Your task to perform on an android device: change the upload size in google photos Image 0: 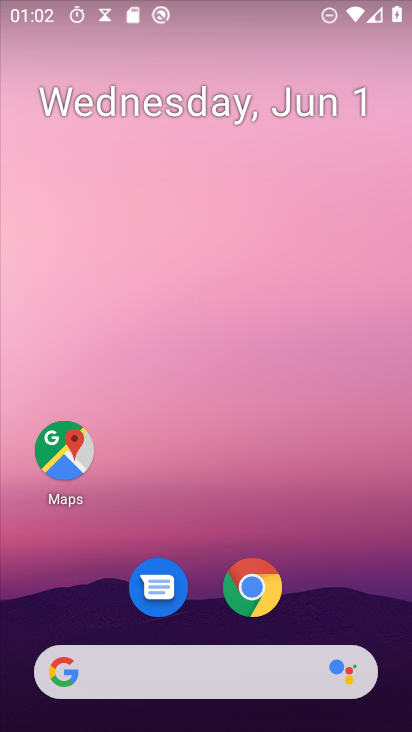
Step 0: drag from (318, 615) to (311, 48)
Your task to perform on an android device: change the upload size in google photos Image 1: 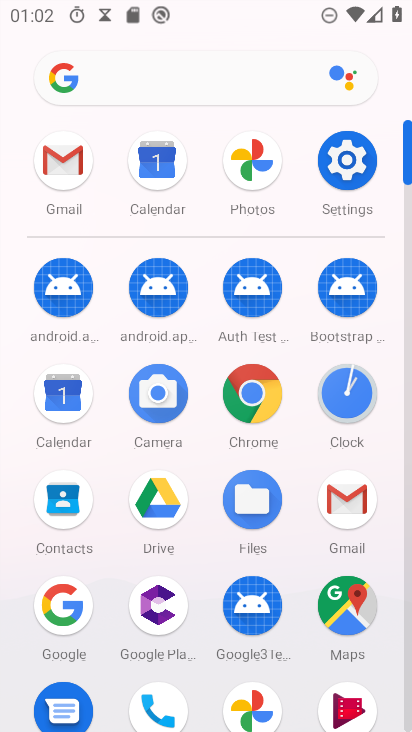
Step 1: click (255, 701)
Your task to perform on an android device: change the upload size in google photos Image 2: 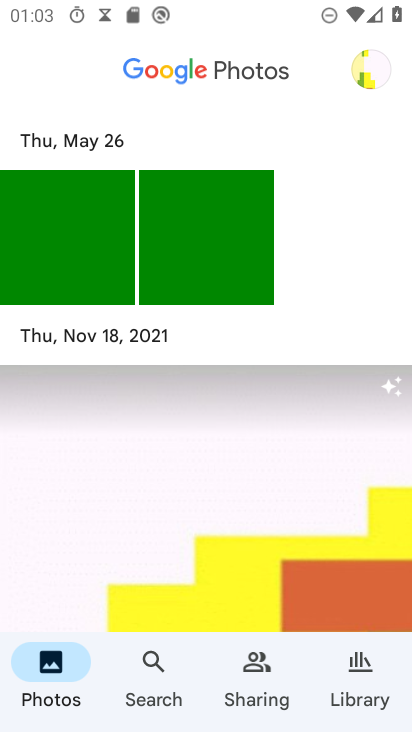
Step 2: click (359, 76)
Your task to perform on an android device: change the upload size in google photos Image 3: 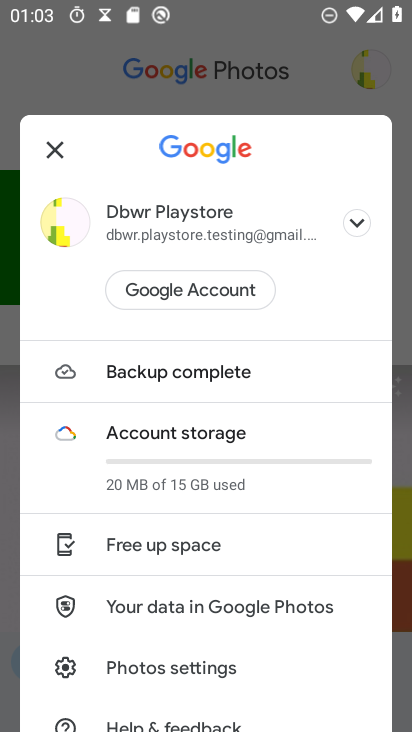
Step 3: drag from (281, 637) to (273, 165)
Your task to perform on an android device: change the upload size in google photos Image 4: 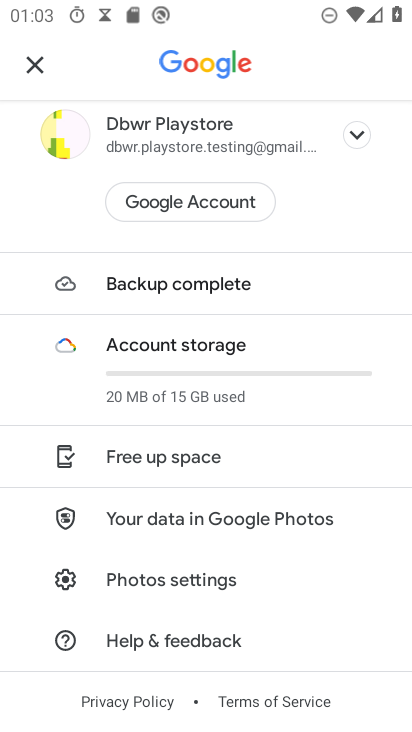
Step 4: click (230, 586)
Your task to perform on an android device: change the upload size in google photos Image 5: 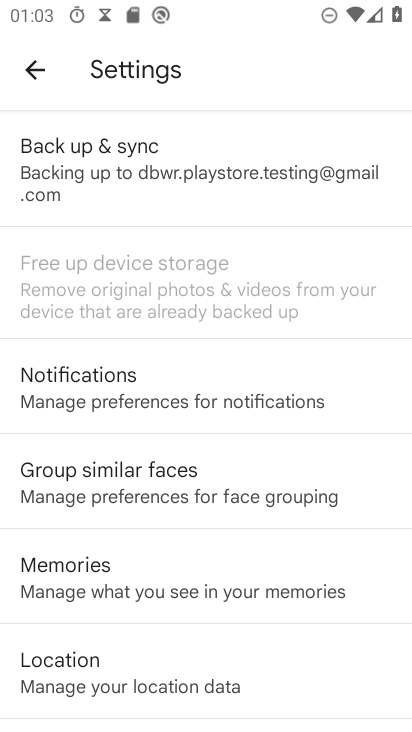
Step 5: click (182, 161)
Your task to perform on an android device: change the upload size in google photos Image 6: 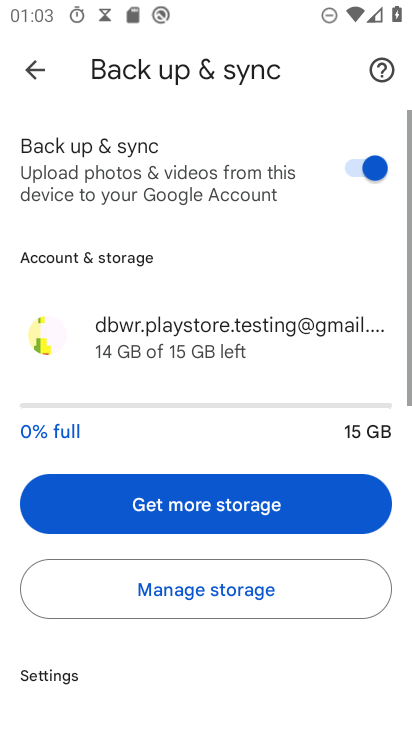
Step 6: drag from (176, 665) to (176, 137)
Your task to perform on an android device: change the upload size in google photos Image 7: 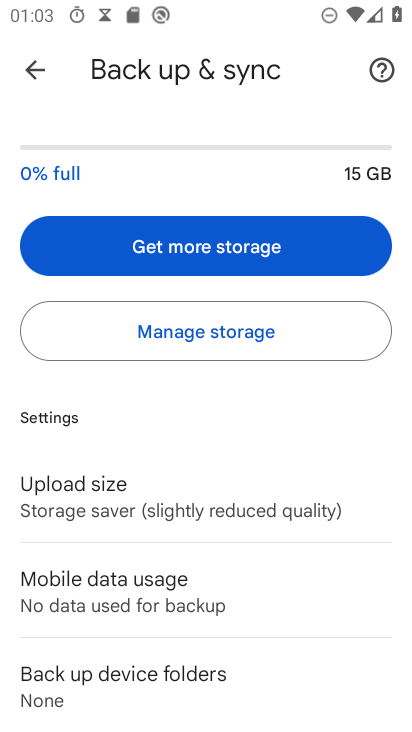
Step 7: click (158, 492)
Your task to perform on an android device: change the upload size in google photos Image 8: 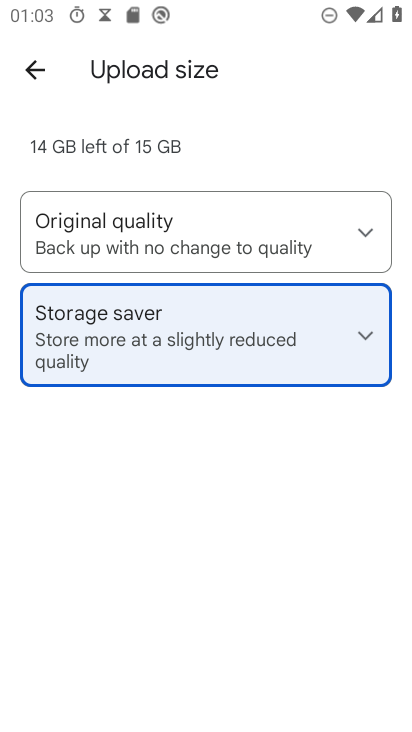
Step 8: click (152, 179)
Your task to perform on an android device: change the upload size in google photos Image 9: 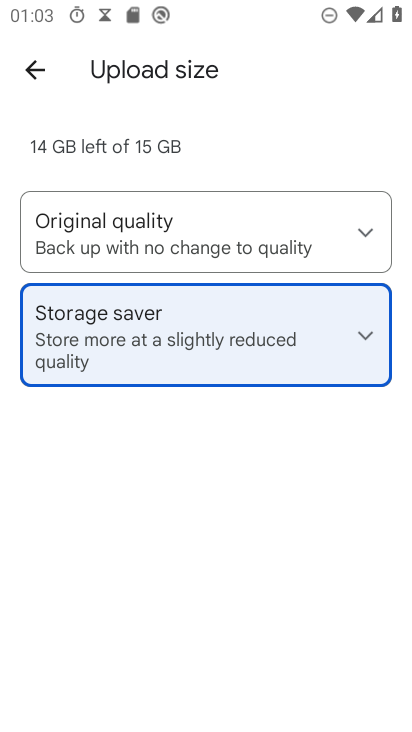
Step 9: click (154, 232)
Your task to perform on an android device: change the upload size in google photos Image 10: 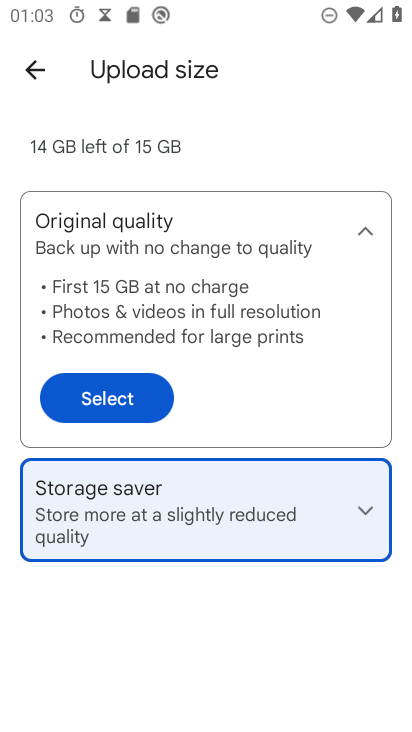
Step 10: click (119, 394)
Your task to perform on an android device: change the upload size in google photos Image 11: 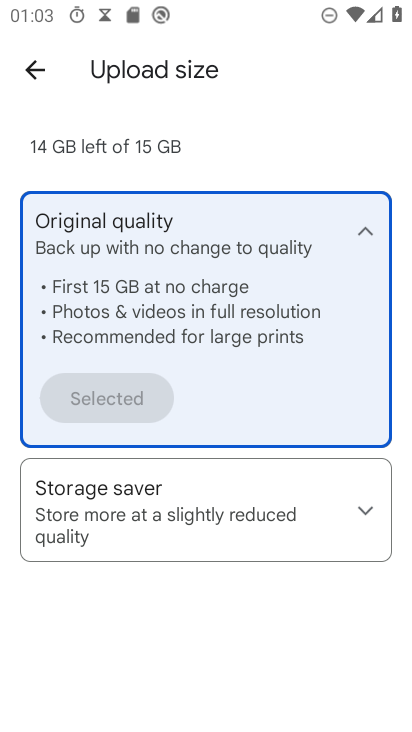
Step 11: task complete